Your task to perform on an android device: all mails in gmail Image 0: 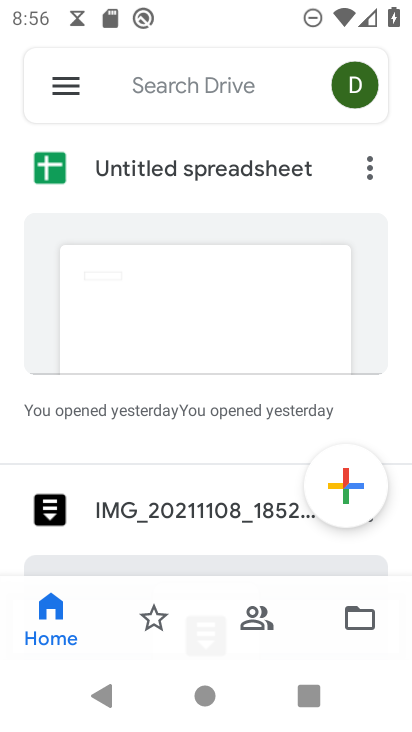
Step 0: press home button
Your task to perform on an android device: all mails in gmail Image 1: 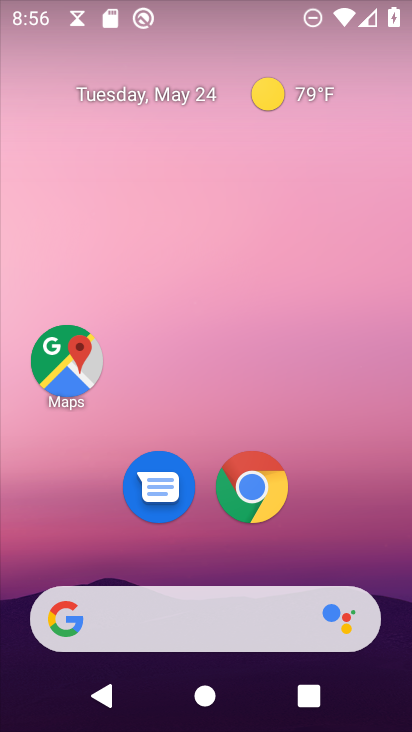
Step 1: drag from (30, 470) to (206, 122)
Your task to perform on an android device: all mails in gmail Image 2: 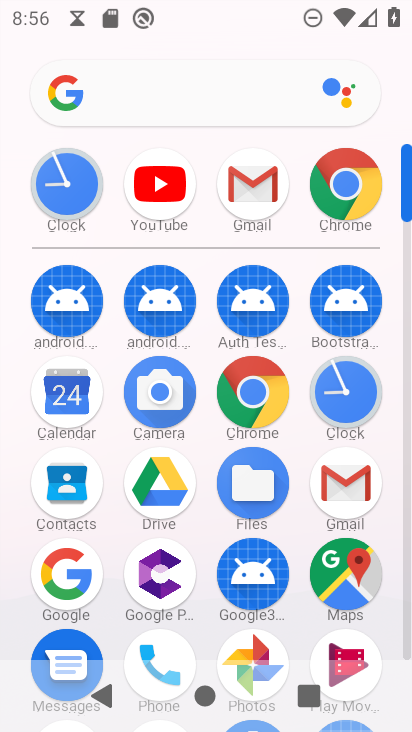
Step 2: click (343, 491)
Your task to perform on an android device: all mails in gmail Image 3: 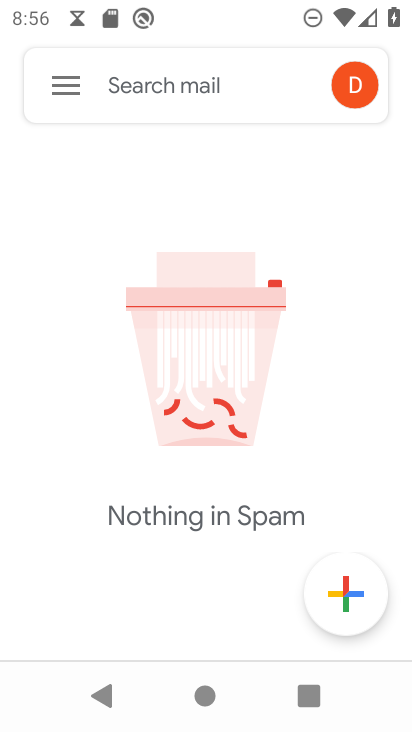
Step 3: click (64, 90)
Your task to perform on an android device: all mails in gmail Image 4: 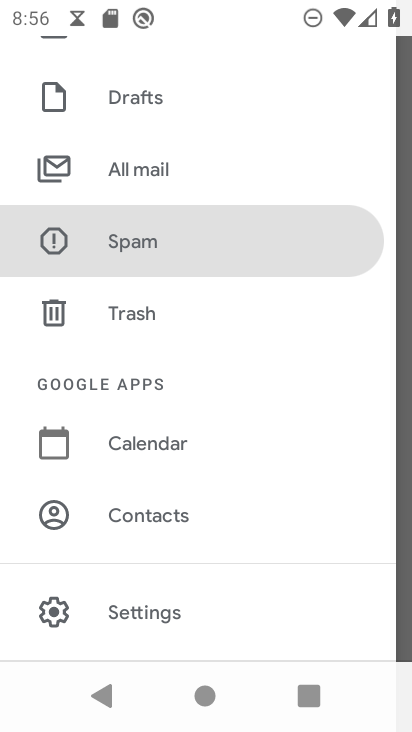
Step 4: click (179, 178)
Your task to perform on an android device: all mails in gmail Image 5: 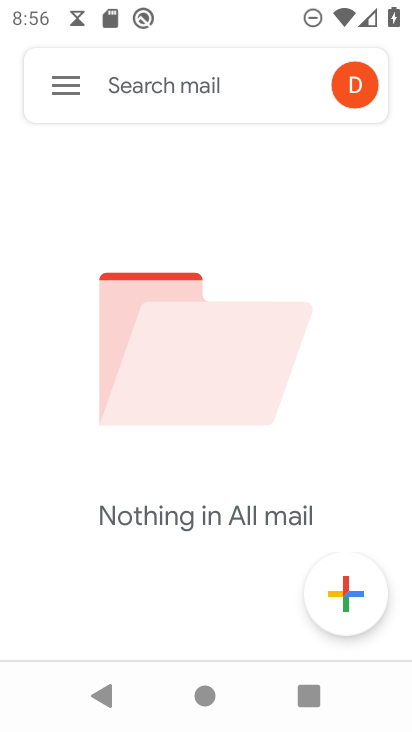
Step 5: task complete